Your task to perform on an android device: show emergency info Image 0: 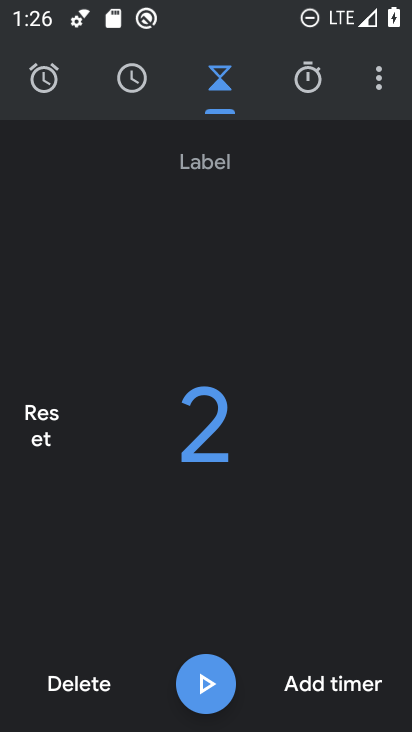
Step 0: press home button
Your task to perform on an android device: show emergency info Image 1: 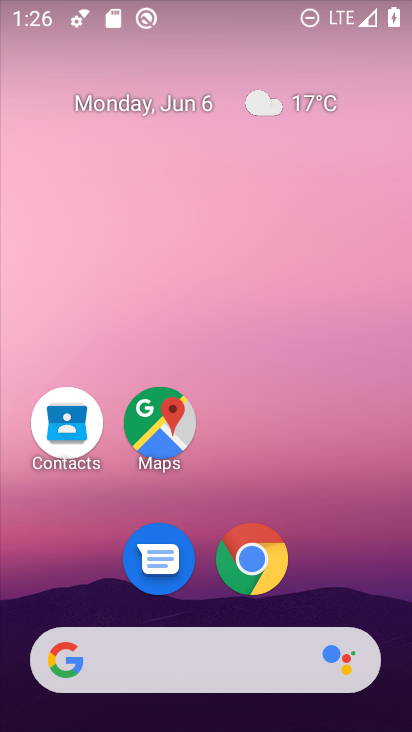
Step 1: drag from (201, 667) to (310, 37)
Your task to perform on an android device: show emergency info Image 2: 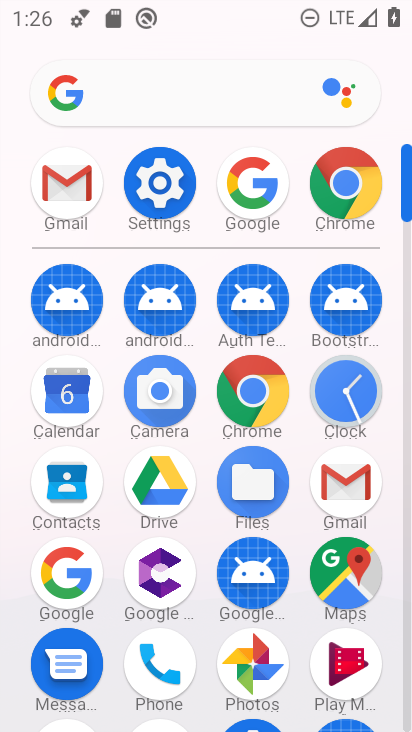
Step 2: click (173, 184)
Your task to perform on an android device: show emergency info Image 3: 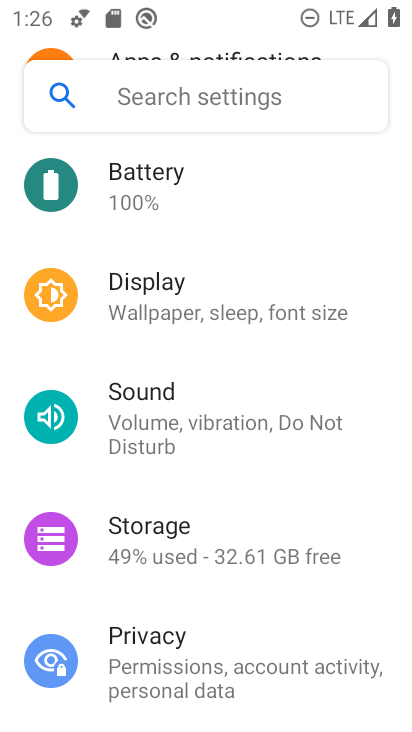
Step 3: drag from (179, 565) to (272, 97)
Your task to perform on an android device: show emergency info Image 4: 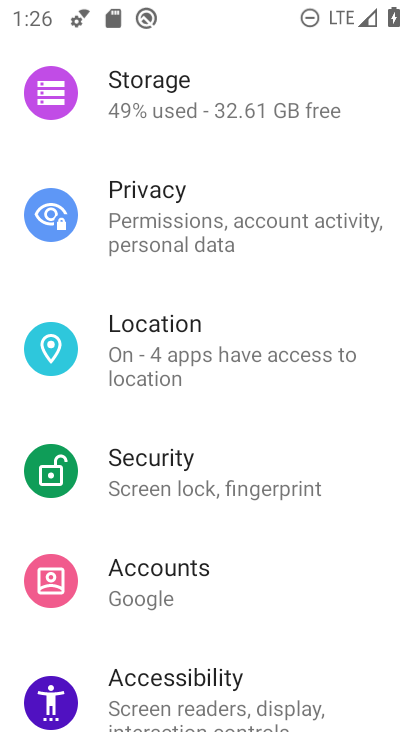
Step 4: drag from (182, 652) to (186, 330)
Your task to perform on an android device: show emergency info Image 5: 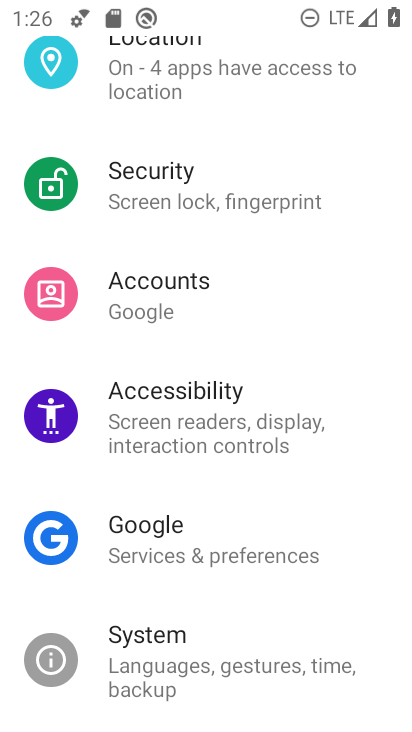
Step 5: drag from (180, 623) to (226, 262)
Your task to perform on an android device: show emergency info Image 6: 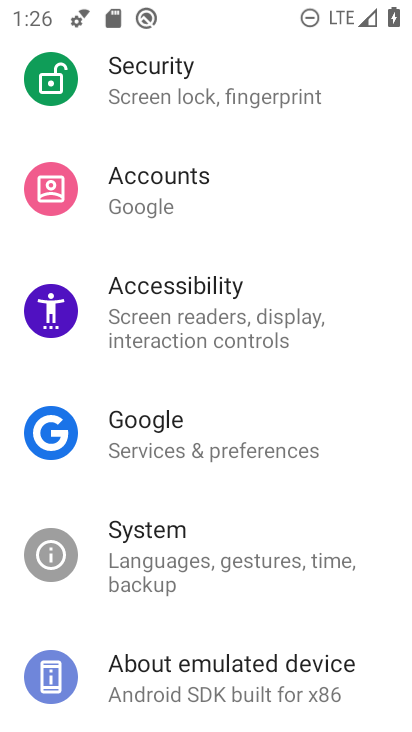
Step 6: click (218, 678)
Your task to perform on an android device: show emergency info Image 7: 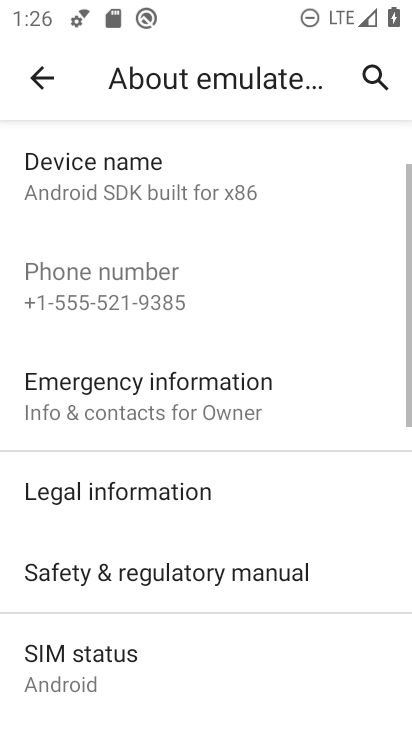
Step 7: click (194, 409)
Your task to perform on an android device: show emergency info Image 8: 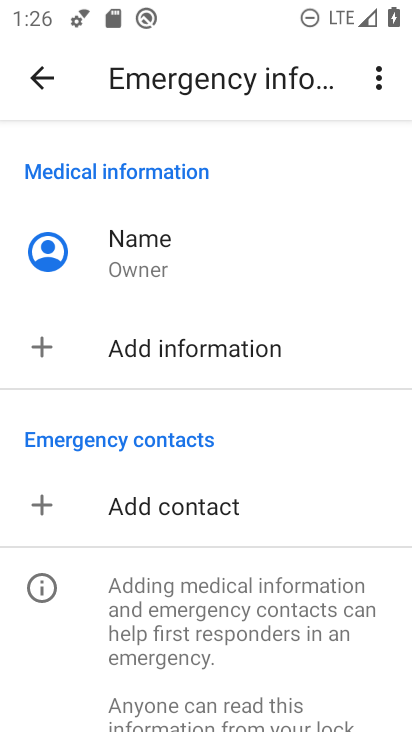
Step 8: task complete